Your task to perform on an android device: Search for pizza restaurants on Maps Image 0: 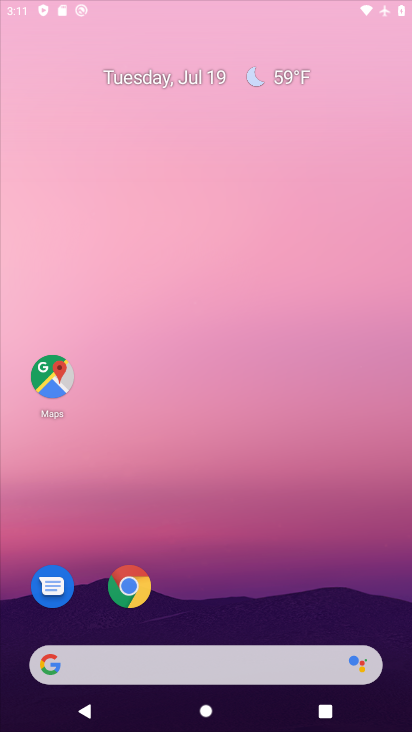
Step 0: press home button
Your task to perform on an android device: Search for pizza restaurants on Maps Image 1: 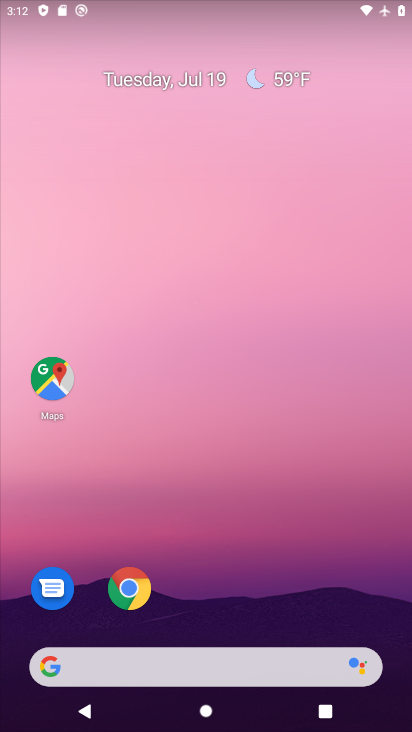
Step 1: drag from (252, 616) to (358, 104)
Your task to perform on an android device: Search for pizza restaurants on Maps Image 2: 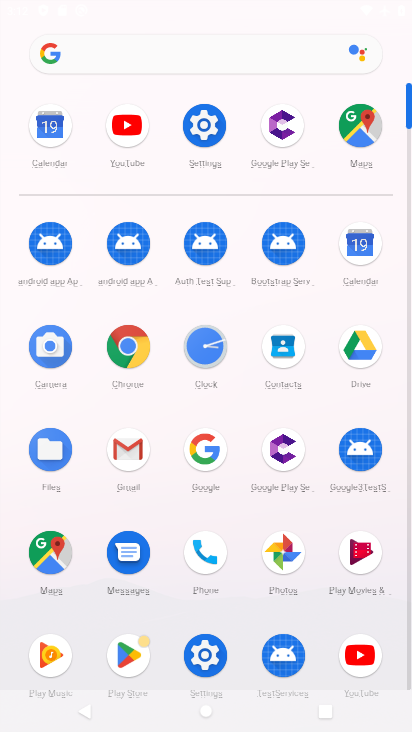
Step 2: click (335, 126)
Your task to perform on an android device: Search for pizza restaurants on Maps Image 3: 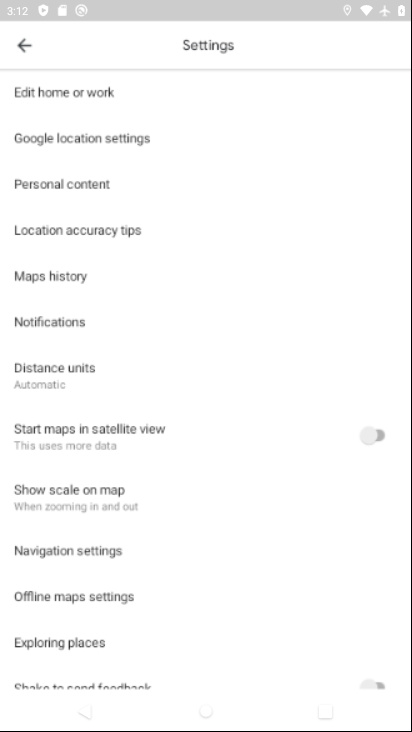
Step 3: click (21, 47)
Your task to perform on an android device: Search for pizza restaurants on Maps Image 4: 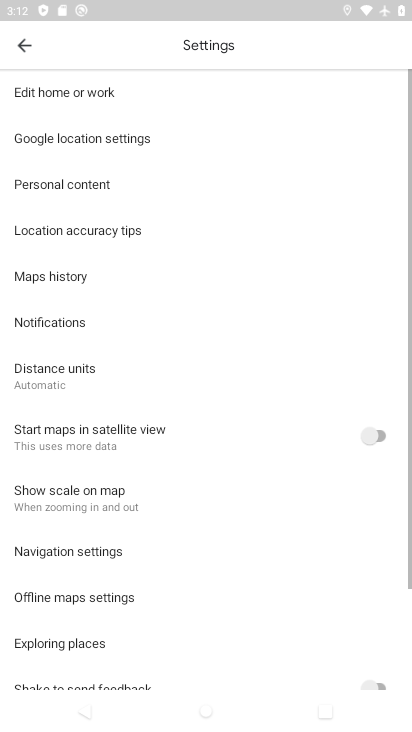
Step 4: click (21, 47)
Your task to perform on an android device: Search for pizza restaurants on Maps Image 5: 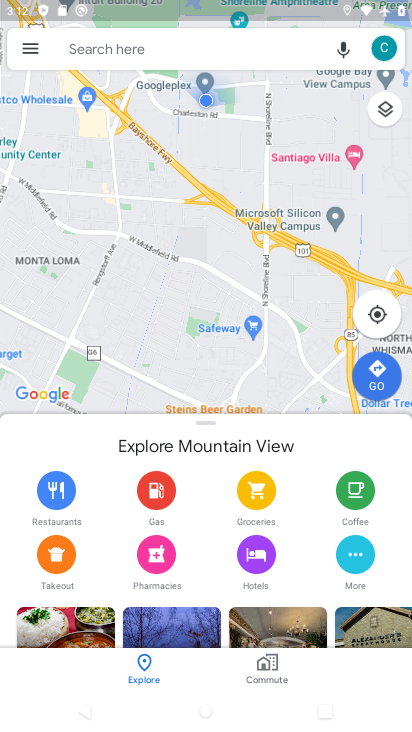
Step 5: click (151, 43)
Your task to perform on an android device: Search for pizza restaurants on Maps Image 6: 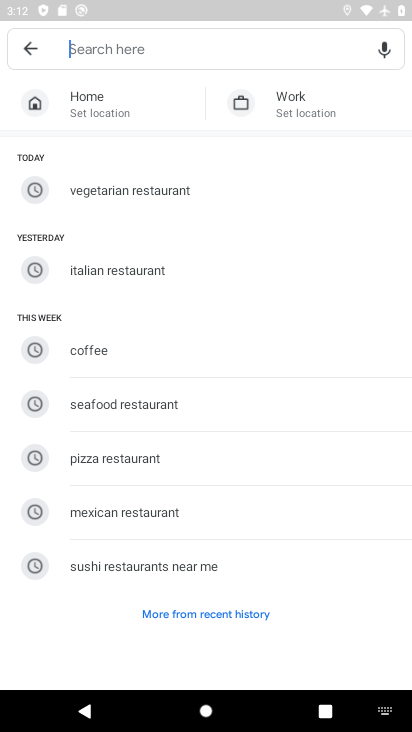
Step 6: click (109, 460)
Your task to perform on an android device: Search for pizza restaurants on Maps Image 7: 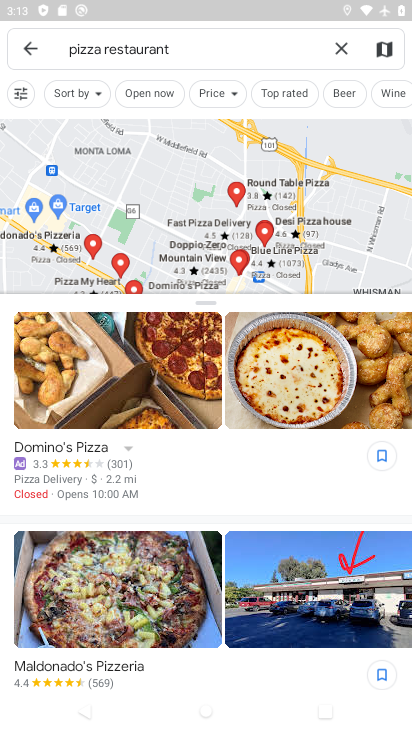
Step 7: task complete